Your task to perform on an android device: refresh tabs in the chrome app Image 0: 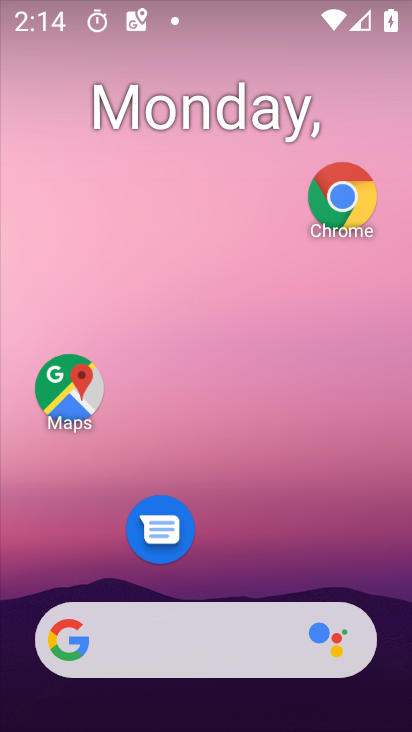
Step 0: drag from (210, 603) to (277, 0)
Your task to perform on an android device: refresh tabs in the chrome app Image 1: 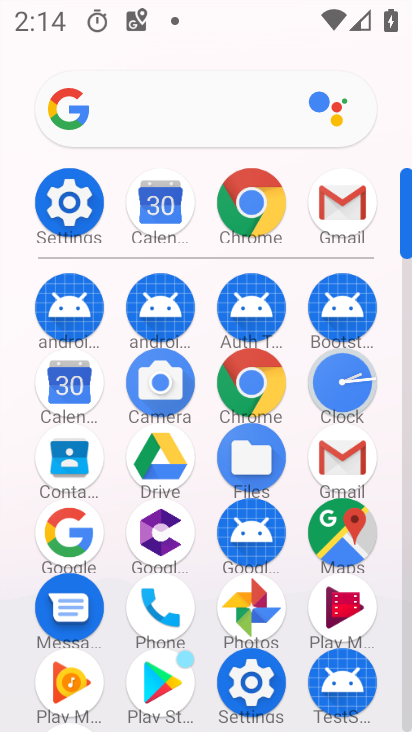
Step 1: click (251, 216)
Your task to perform on an android device: refresh tabs in the chrome app Image 2: 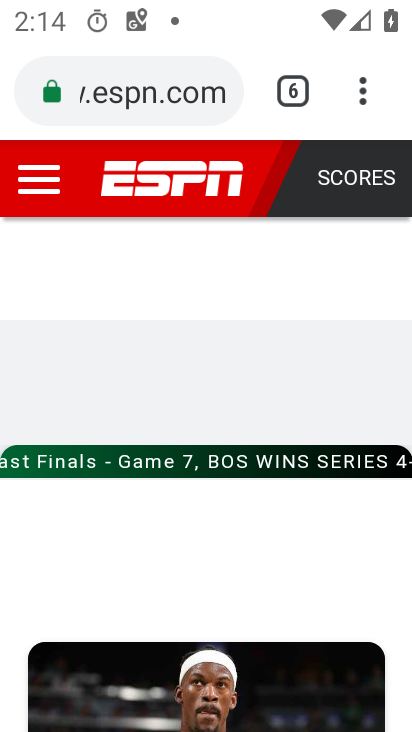
Step 2: click (368, 92)
Your task to perform on an android device: refresh tabs in the chrome app Image 3: 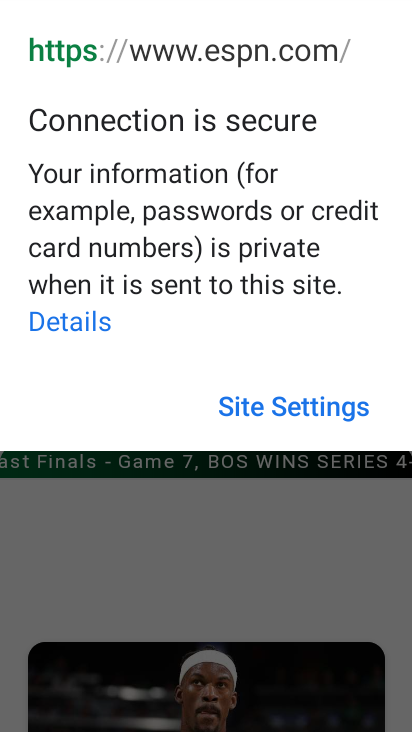
Step 3: drag from (368, 92) to (398, 41)
Your task to perform on an android device: refresh tabs in the chrome app Image 4: 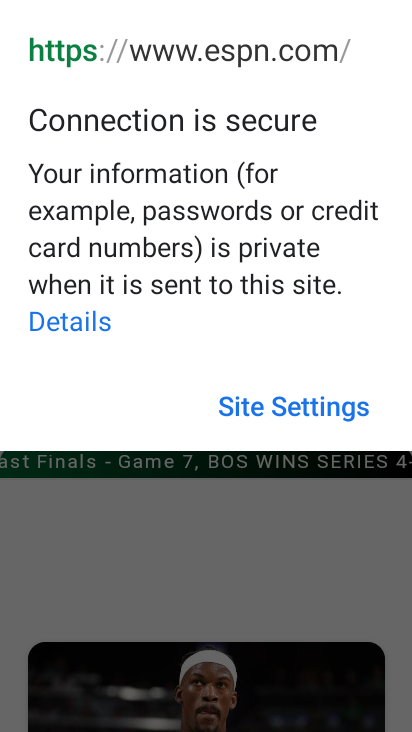
Step 4: click (260, 595)
Your task to perform on an android device: refresh tabs in the chrome app Image 5: 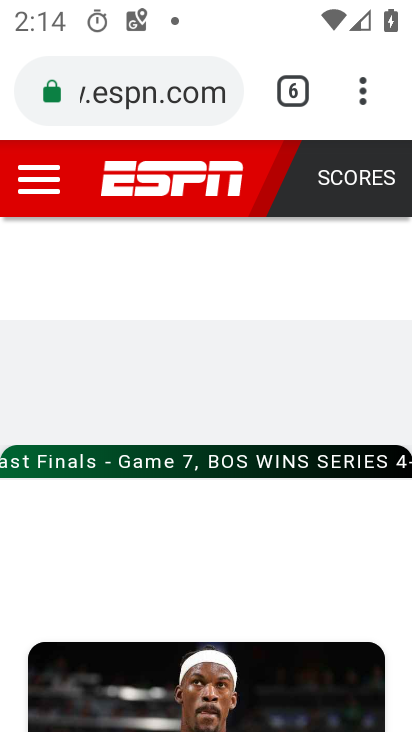
Step 5: click (370, 105)
Your task to perform on an android device: refresh tabs in the chrome app Image 6: 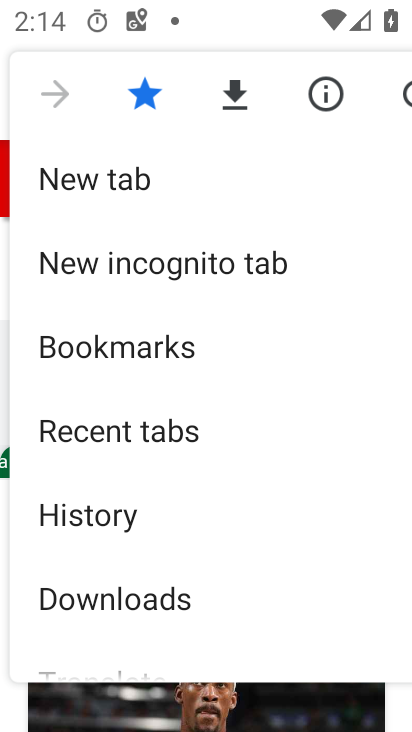
Step 6: click (406, 100)
Your task to perform on an android device: refresh tabs in the chrome app Image 7: 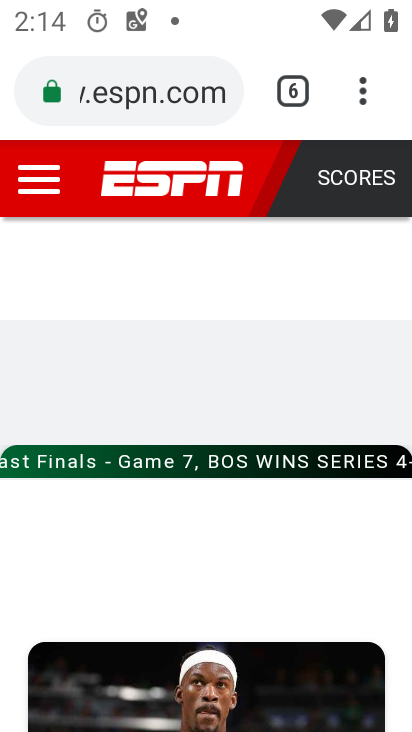
Step 7: task complete